Your task to perform on an android device: see sites visited before in the chrome app Image 0: 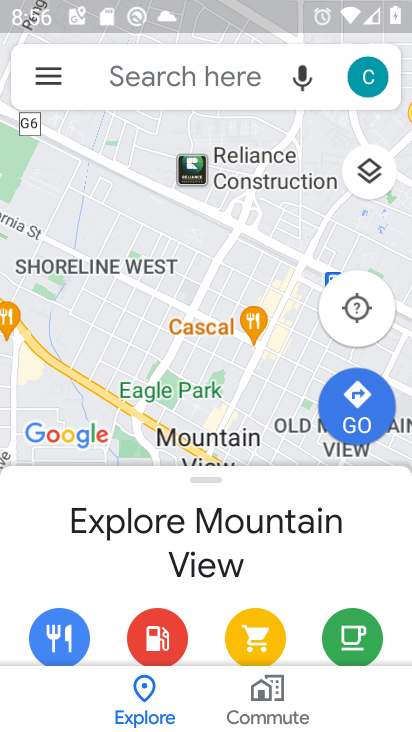
Step 0: press home button
Your task to perform on an android device: see sites visited before in the chrome app Image 1: 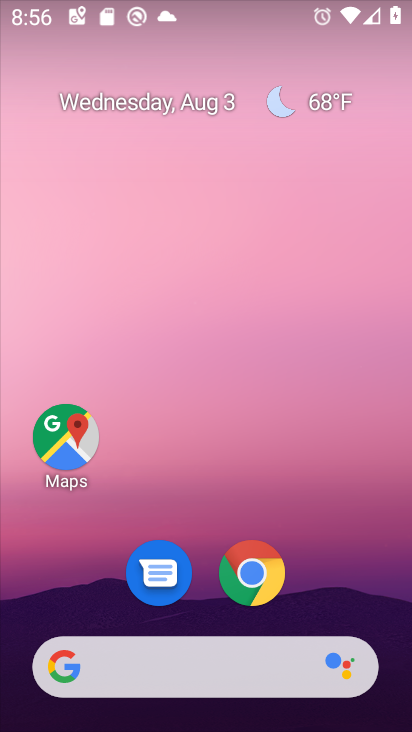
Step 1: click (255, 585)
Your task to perform on an android device: see sites visited before in the chrome app Image 2: 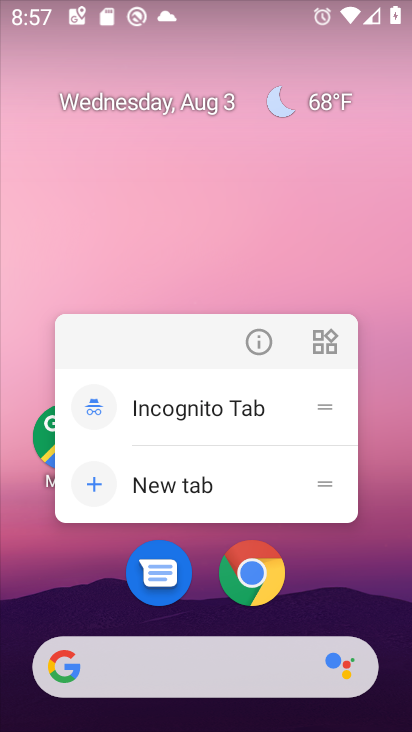
Step 2: click (252, 578)
Your task to perform on an android device: see sites visited before in the chrome app Image 3: 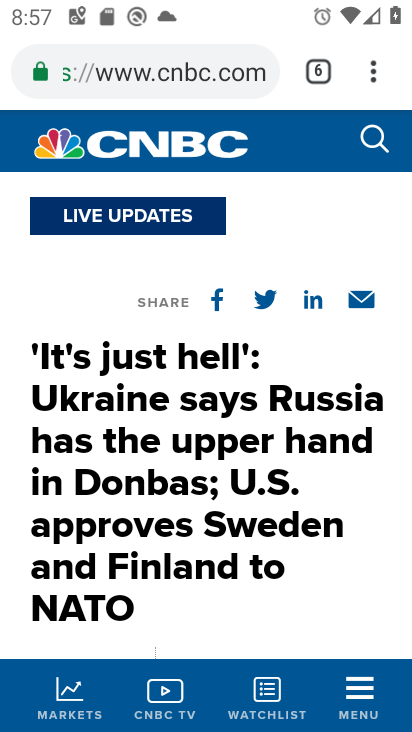
Step 3: click (377, 74)
Your task to perform on an android device: see sites visited before in the chrome app Image 4: 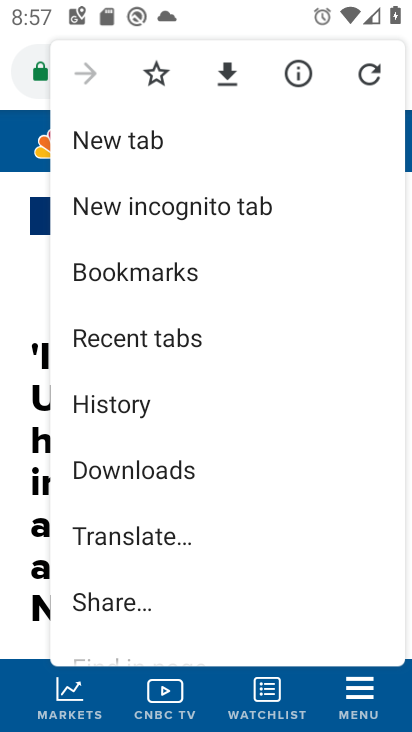
Step 4: click (127, 405)
Your task to perform on an android device: see sites visited before in the chrome app Image 5: 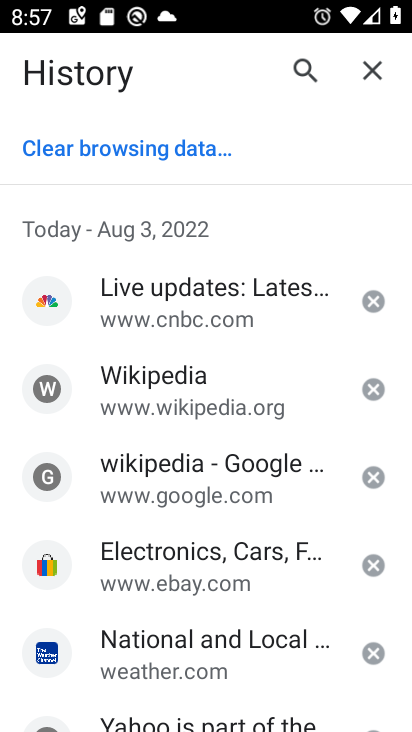
Step 5: task complete